Your task to perform on an android device: Open wifi settings Image 0: 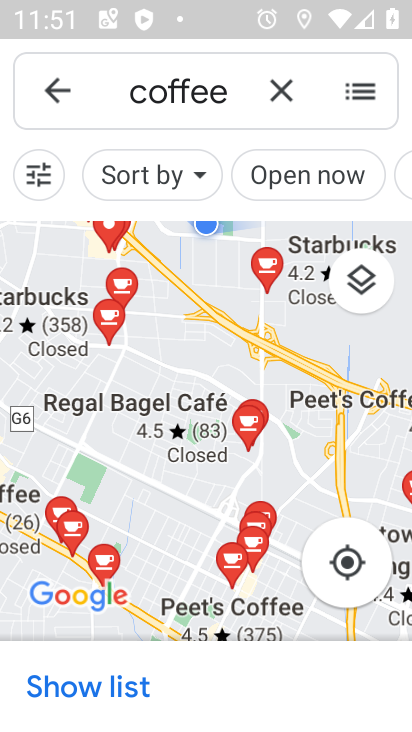
Step 0: press home button
Your task to perform on an android device: Open wifi settings Image 1: 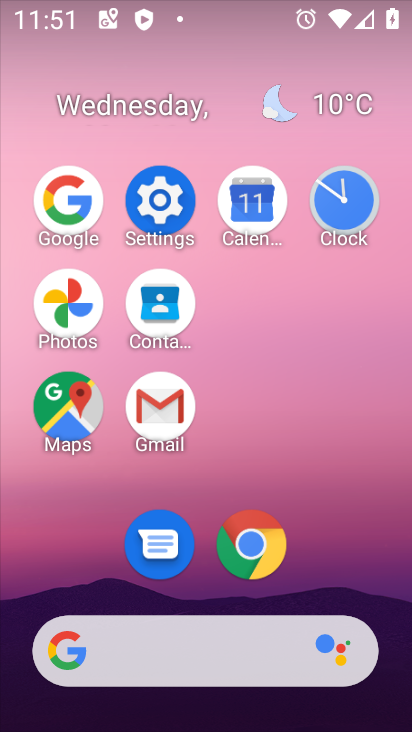
Step 1: click (170, 191)
Your task to perform on an android device: Open wifi settings Image 2: 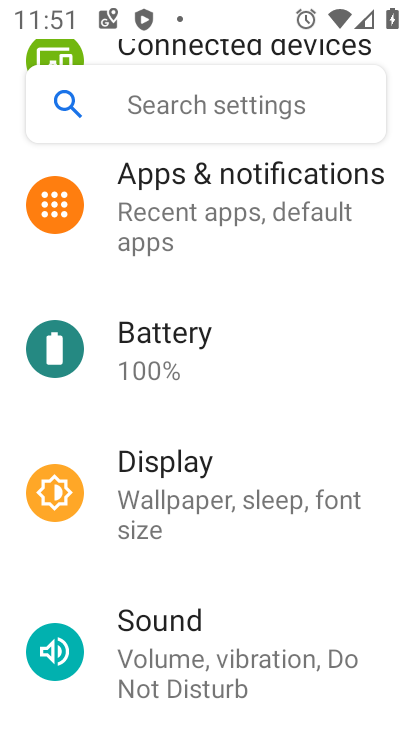
Step 2: drag from (316, 280) to (286, 547)
Your task to perform on an android device: Open wifi settings Image 3: 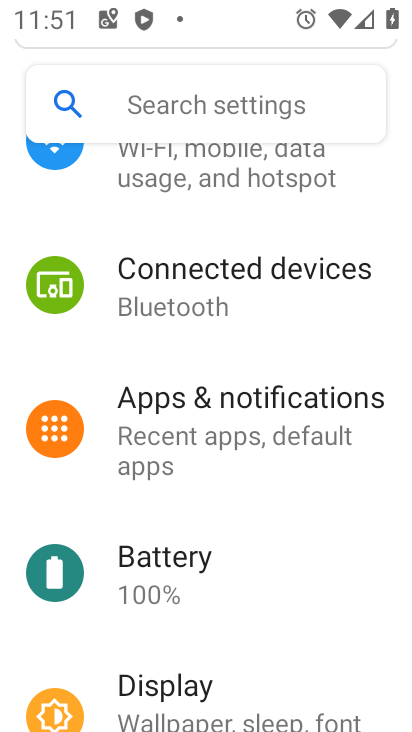
Step 3: drag from (318, 243) to (312, 529)
Your task to perform on an android device: Open wifi settings Image 4: 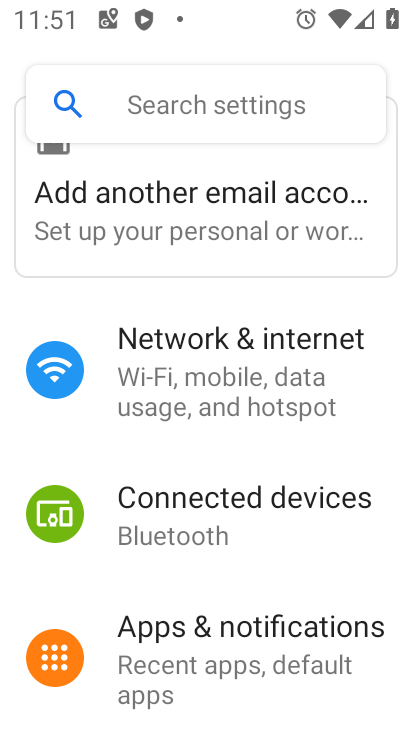
Step 4: click (214, 358)
Your task to perform on an android device: Open wifi settings Image 5: 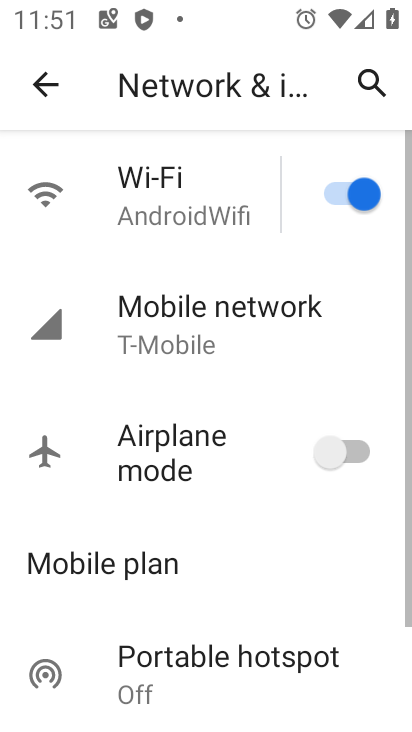
Step 5: click (201, 175)
Your task to perform on an android device: Open wifi settings Image 6: 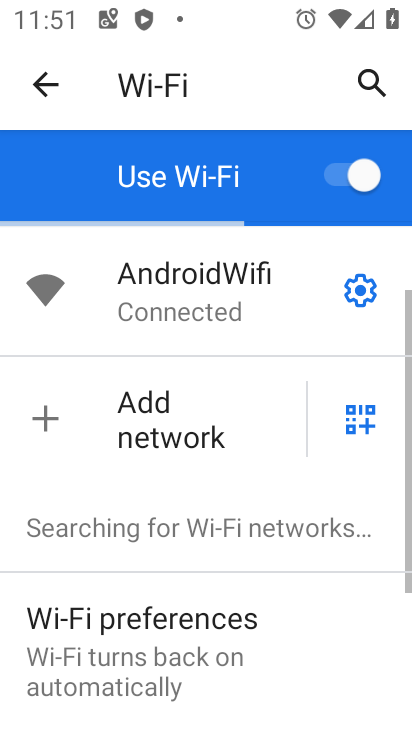
Step 6: click (355, 300)
Your task to perform on an android device: Open wifi settings Image 7: 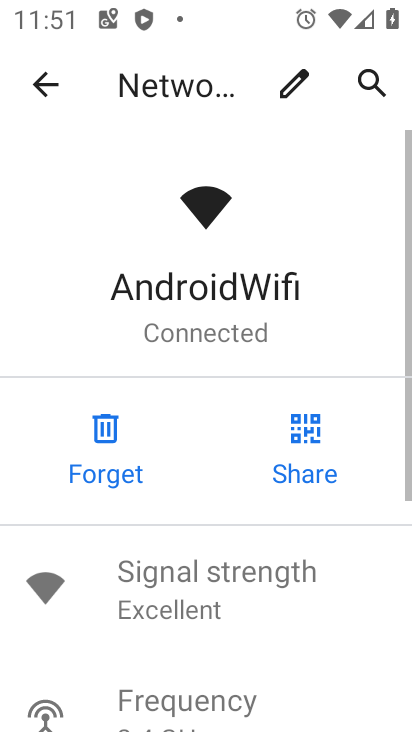
Step 7: task complete